Your task to perform on an android device: set default search engine in the chrome app Image 0: 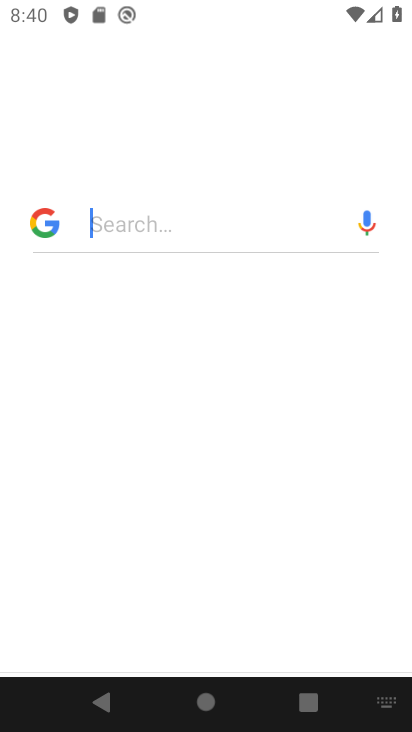
Step 0: drag from (385, 589) to (386, 549)
Your task to perform on an android device: set default search engine in the chrome app Image 1: 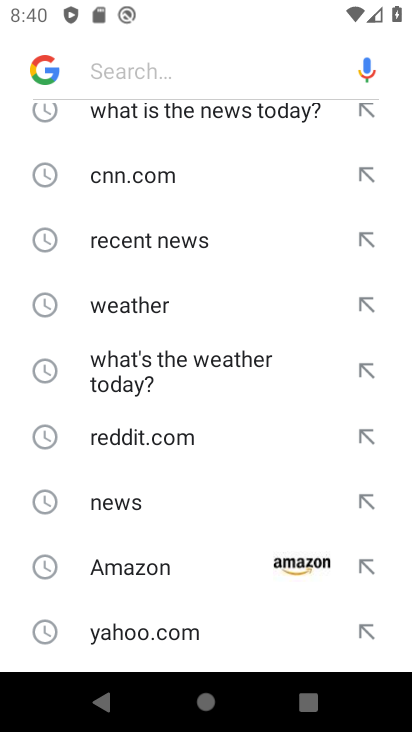
Step 1: press home button
Your task to perform on an android device: set default search engine in the chrome app Image 2: 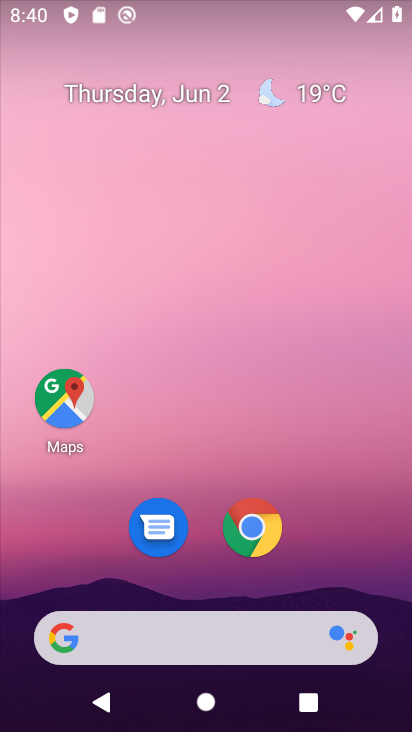
Step 2: click (259, 541)
Your task to perform on an android device: set default search engine in the chrome app Image 3: 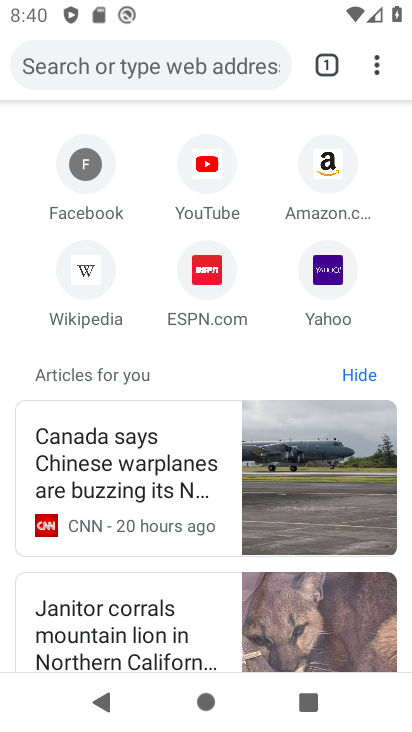
Step 3: click (375, 49)
Your task to perform on an android device: set default search engine in the chrome app Image 4: 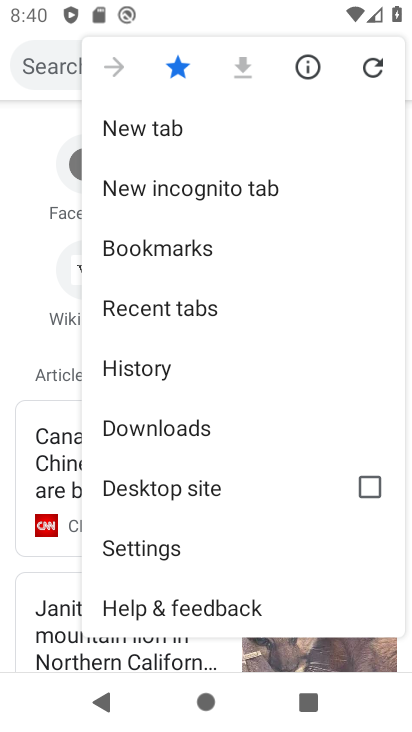
Step 4: drag from (240, 545) to (202, 254)
Your task to perform on an android device: set default search engine in the chrome app Image 5: 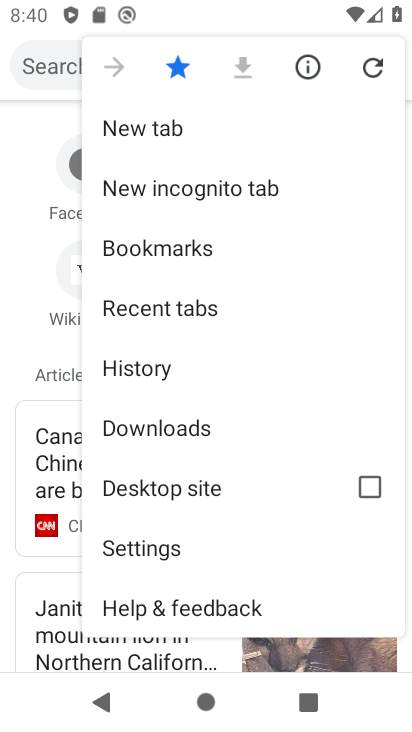
Step 5: click (139, 555)
Your task to perform on an android device: set default search engine in the chrome app Image 6: 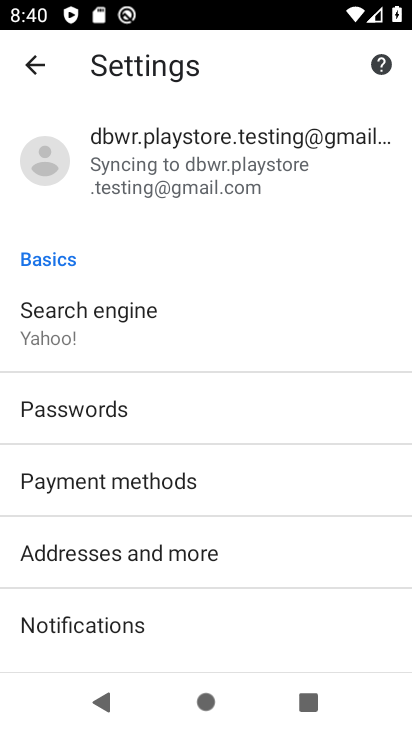
Step 6: click (149, 337)
Your task to perform on an android device: set default search engine in the chrome app Image 7: 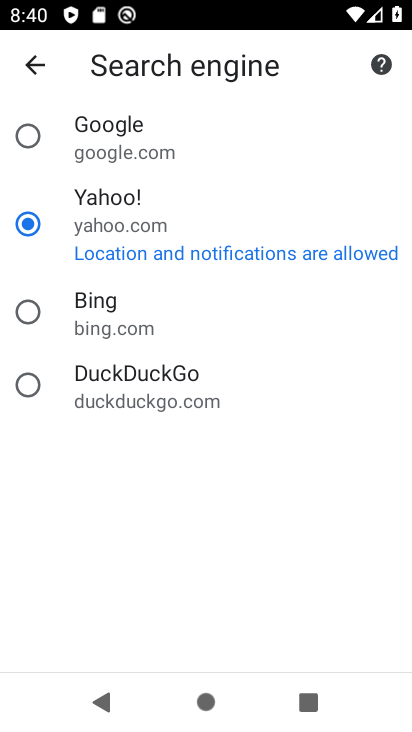
Step 7: click (172, 137)
Your task to perform on an android device: set default search engine in the chrome app Image 8: 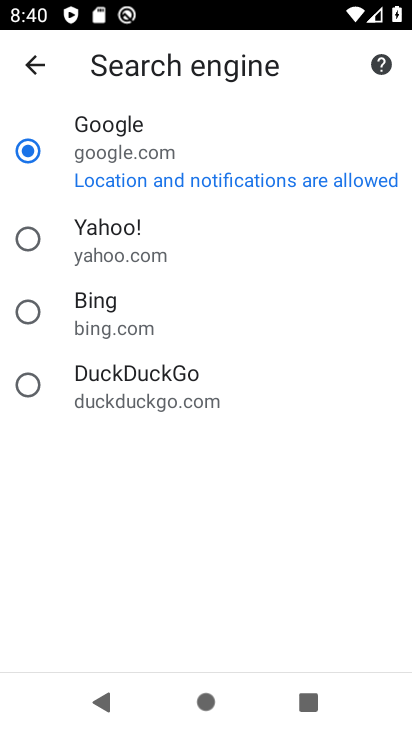
Step 8: task complete